Your task to perform on an android device: delete location history Image 0: 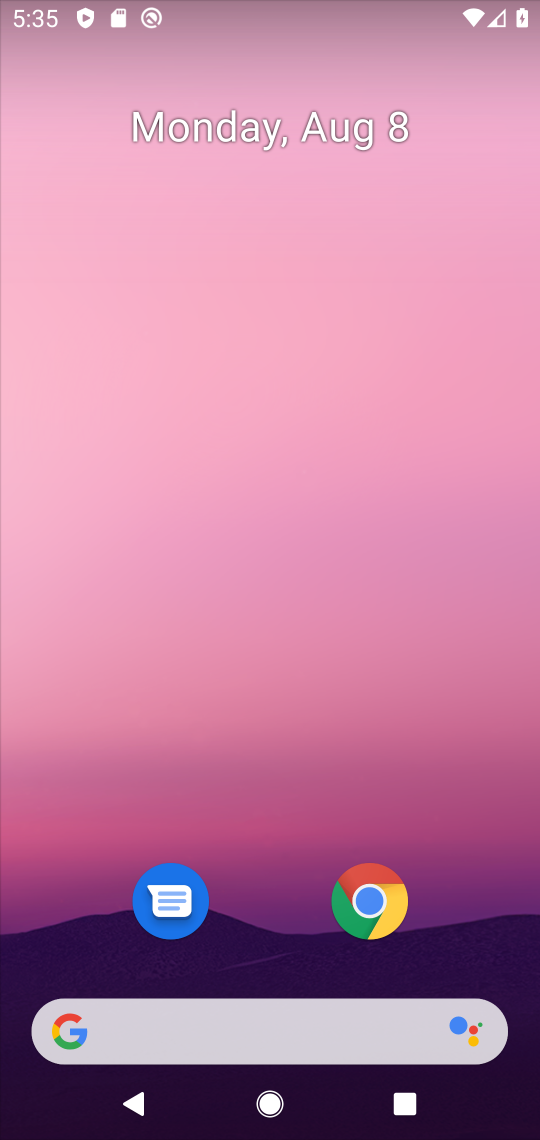
Step 0: drag from (501, 929) to (313, 143)
Your task to perform on an android device: delete location history Image 1: 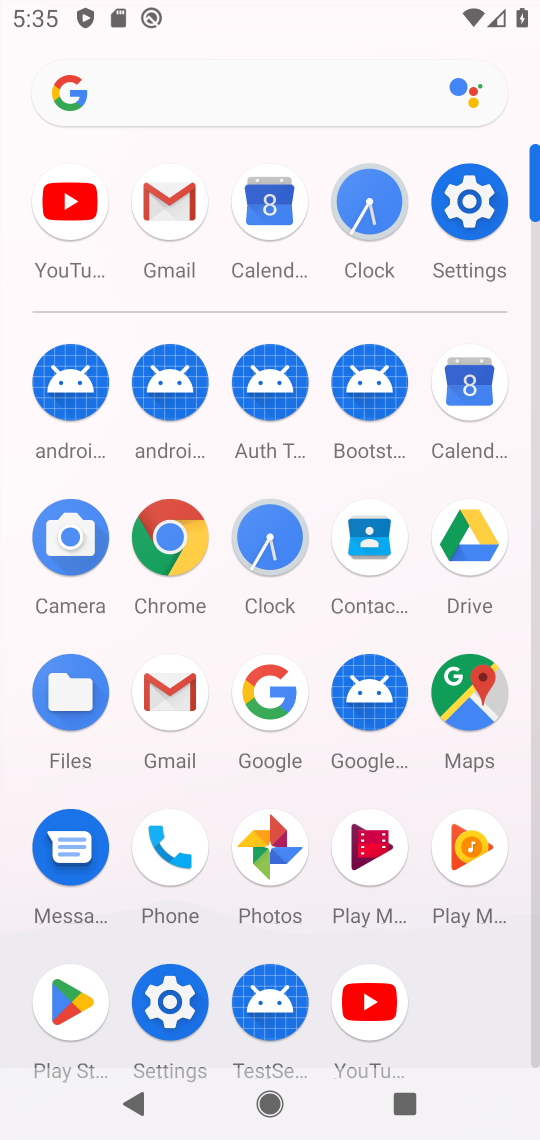
Step 1: click (458, 683)
Your task to perform on an android device: delete location history Image 2: 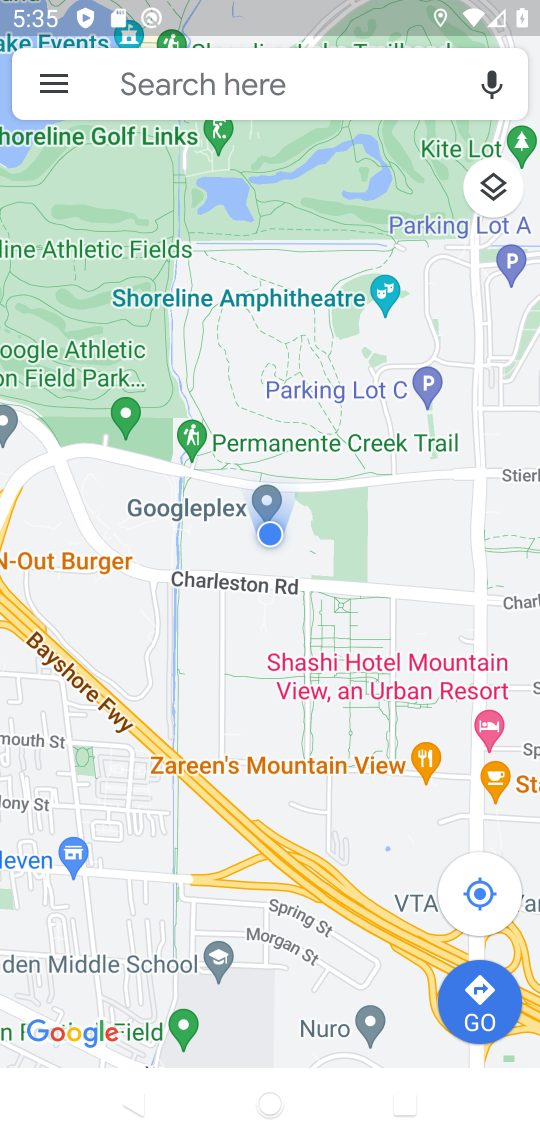
Step 2: click (57, 85)
Your task to perform on an android device: delete location history Image 3: 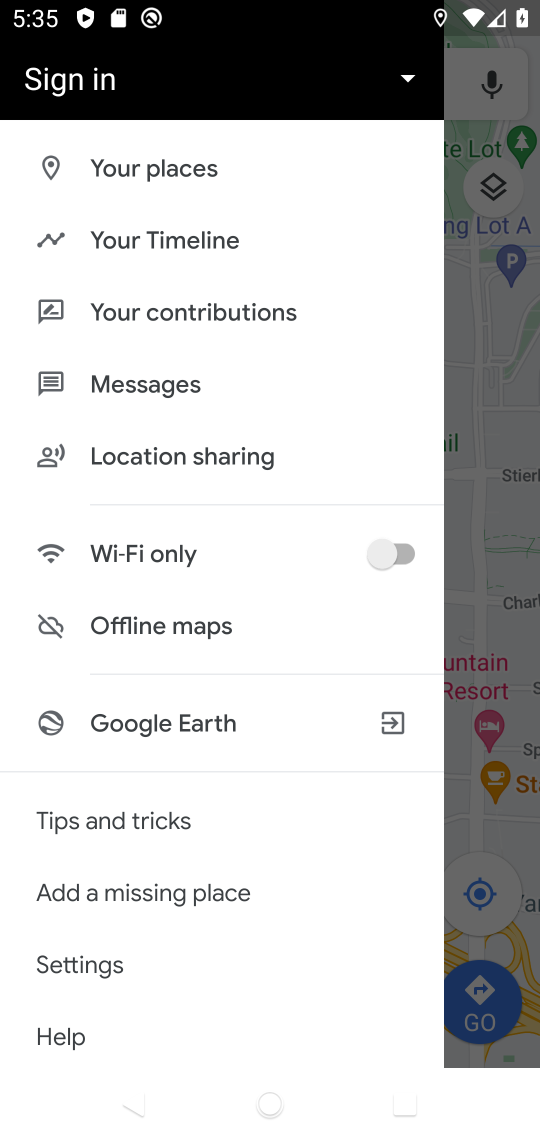
Step 3: click (164, 250)
Your task to perform on an android device: delete location history Image 4: 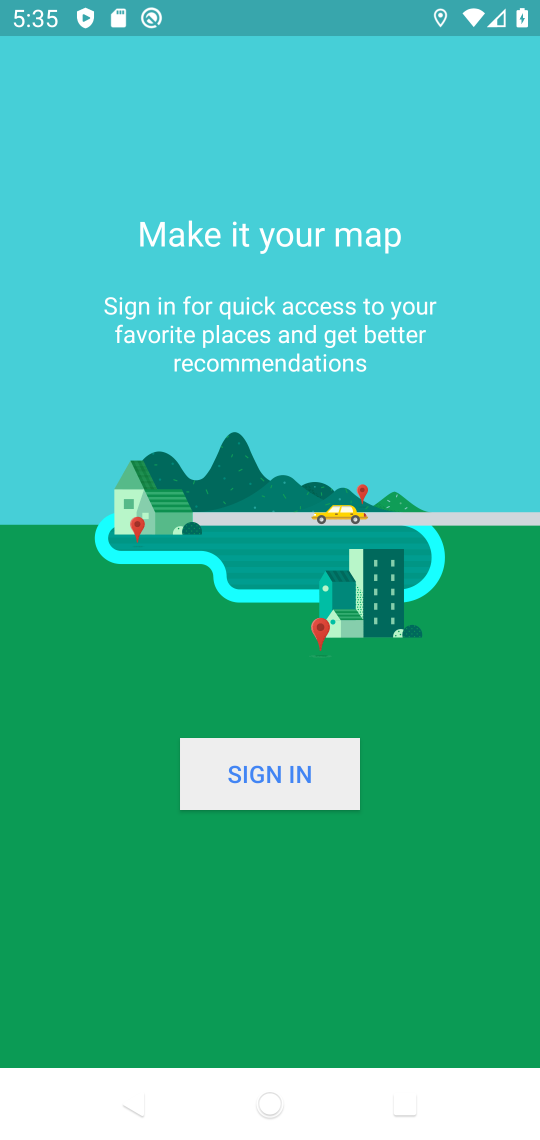
Step 4: task complete